Your task to perform on an android device: turn pop-ups on in chrome Image 0: 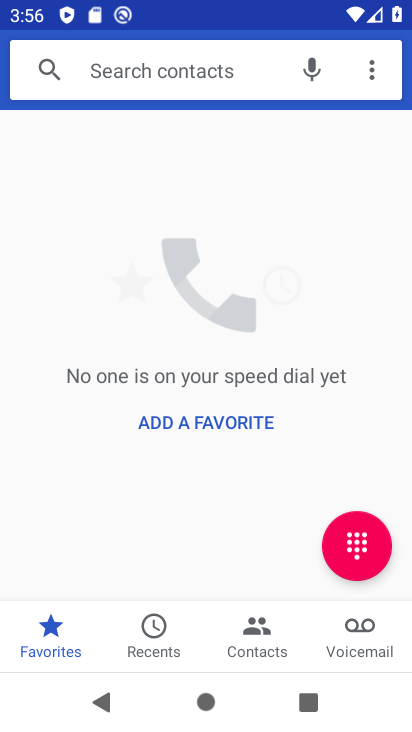
Step 0: press home button
Your task to perform on an android device: turn pop-ups on in chrome Image 1: 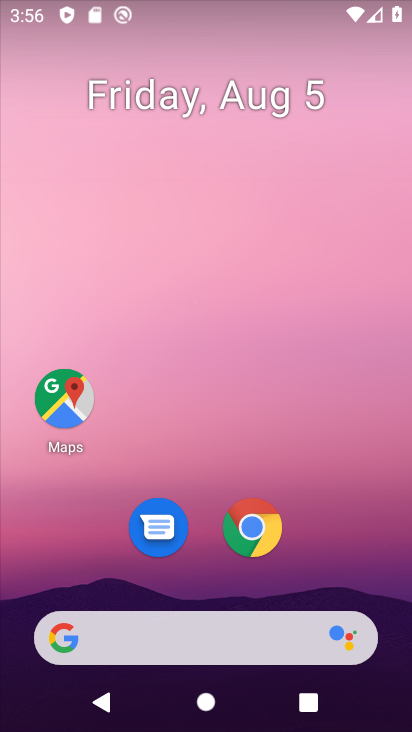
Step 1: click (250, 525)
Your task to perform on an android device: turn pop-ups on in chrome Image 2: 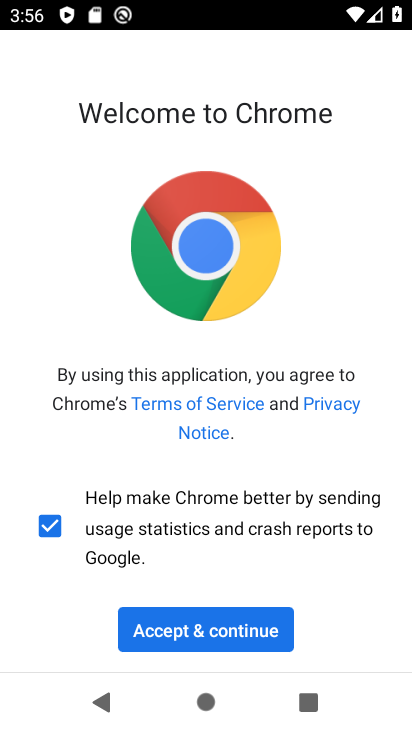
Step 2: click (193, 626)
Your task to perform on an android device: turn pop-ups on in chrome Image 3: 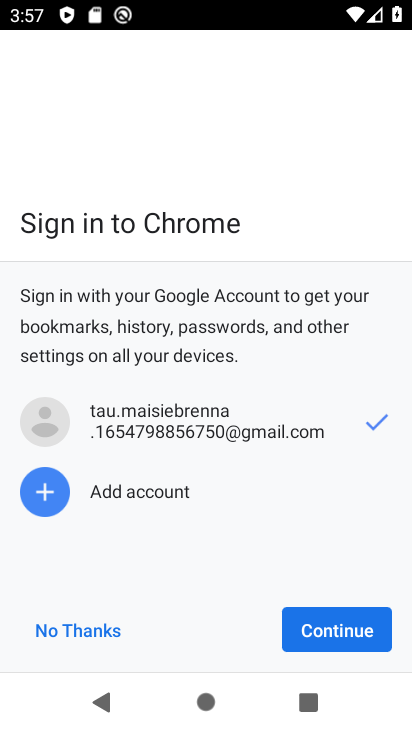
Step 3: click (344, 628)
Your task to perform on an android device: turn pop-ups on in chrome Image 4: 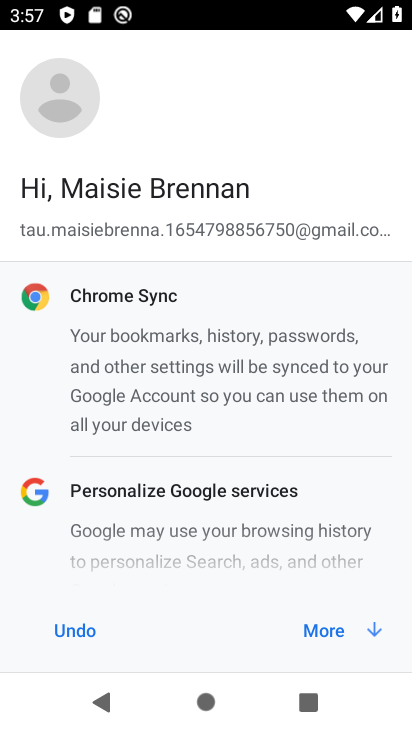
Step 4: click (331, 632)
Your task to perform on an android device: turn pop-ups on in chrome Image 5: 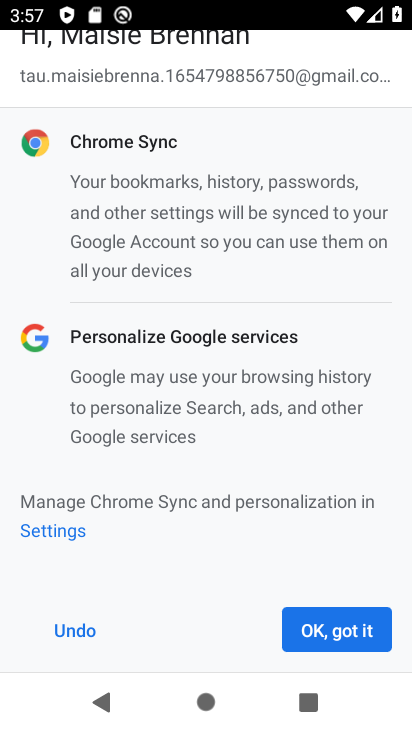
Step 5: click (332, 627)
Your task to perform on an android device: turn pop-ups on in chrome Image 6: 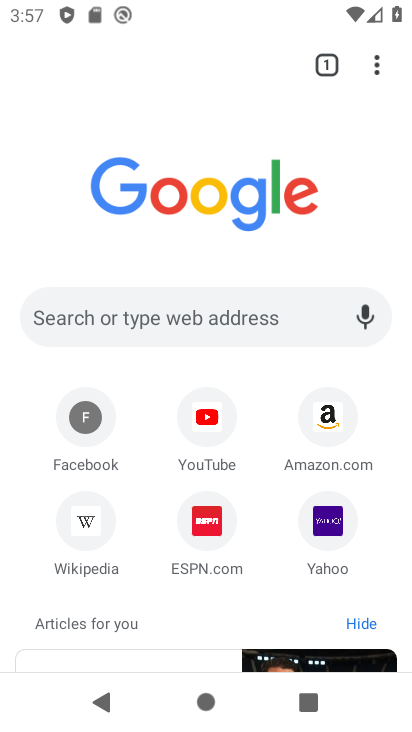
Step 6: click (378, 62)
Your task to perform on an android device: turn pop-ups on in chrome Image 7: 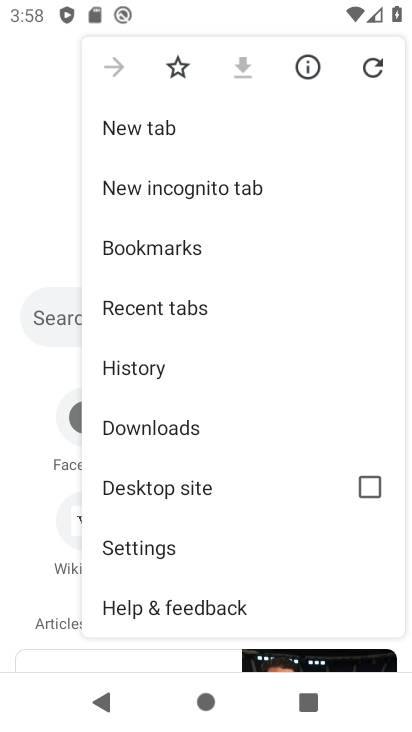
Step 7: click (180, 549)
Your task to perform on an android device: turn pop-ups on in chrome Image 8: 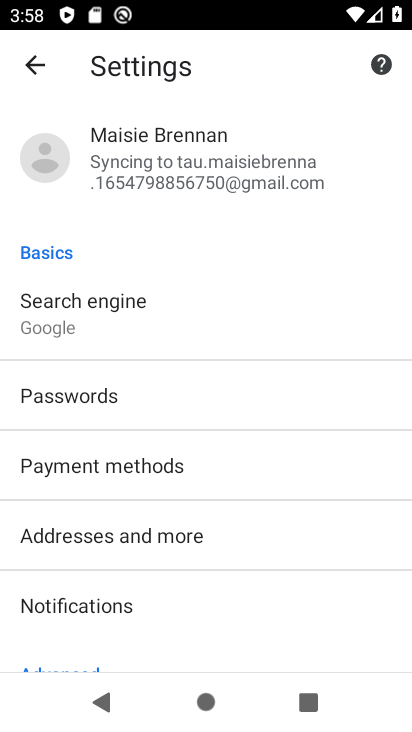
Step 8: drag from (209, 640) to (165, 201)
Your task to perform on an android device: turn pop-ups on in chrome Image 9: 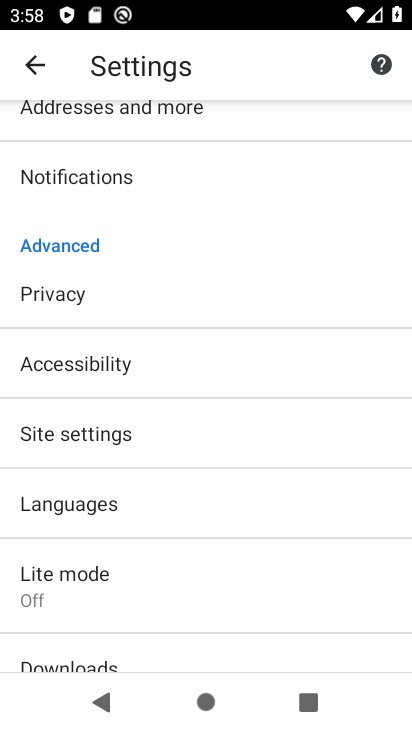
Step 9: drag from (161, 624) to (133, 344)
Your task to perform on an android device: turn pop-ups on in chrome Image 10: 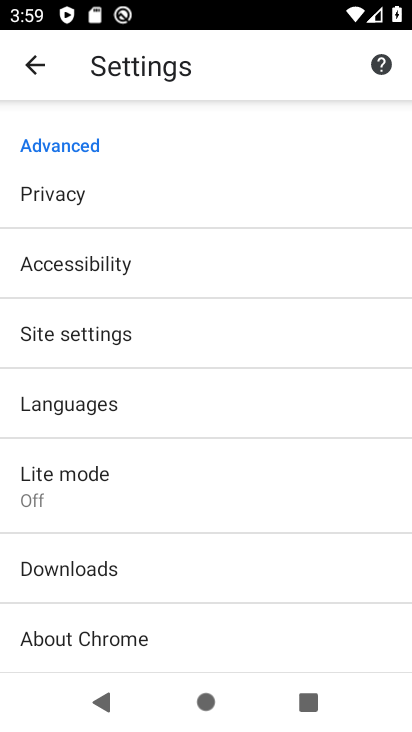
Step 10: click (149, 332)
Your task to perform on an android device: turn pop-ups on in chrome Image 11: 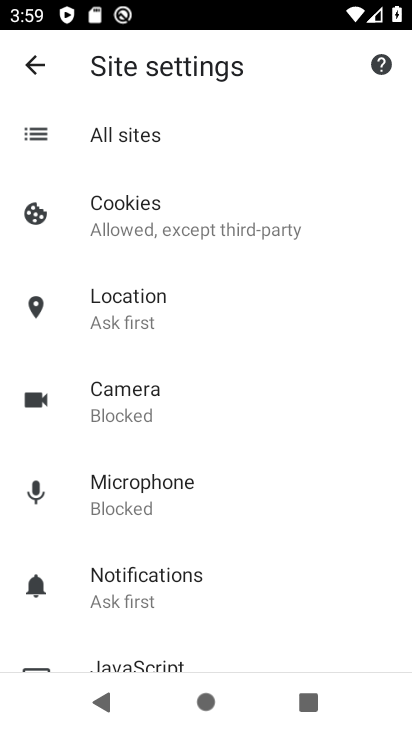
Step 11: drag from (212, 618) to (193, 164)
Your task to perform on an android device: turn pop-ups on in chrome Image 12: 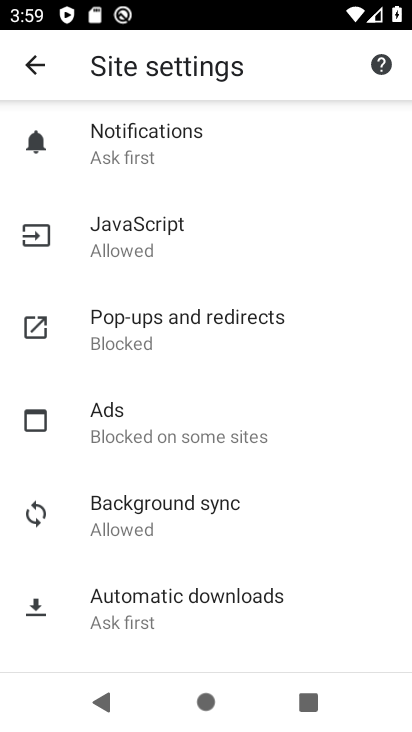
Step 12: click (66, 327)
Your task to perform on an android device: turn pop-ups on in chrome Image 13: 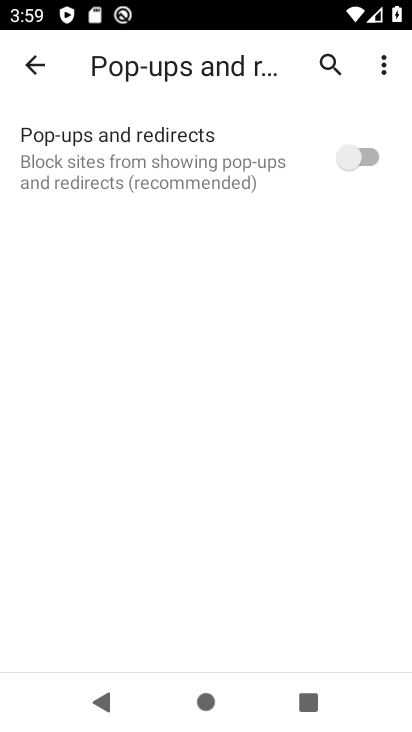
Step 13: click (361, 156)
Your task to perform on an android device: turn pop-ups on in chrome Image 14: 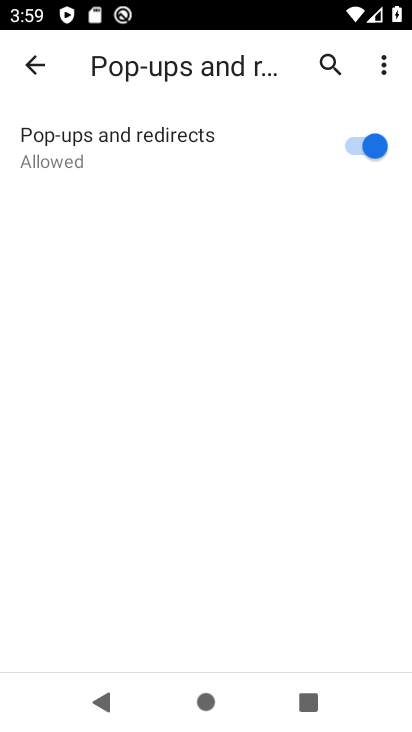
Step 14: task complete